Your task to perform on an android device: Search for the best books of all time on Goodreads Image 0: 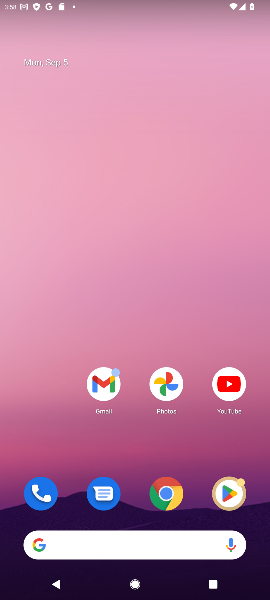
Step 0: drag from (136, 453) to (86, 38)
Your task to perform on an android device: Search for the best books of all time on Goodreads Image 1: 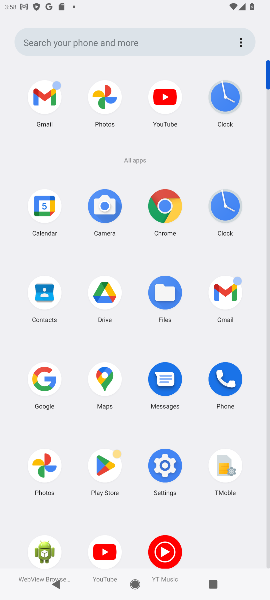
Step 1: click (164, 211)
Your task to perform on an android device: Search for the best books of all time on Goodreads Image 2: 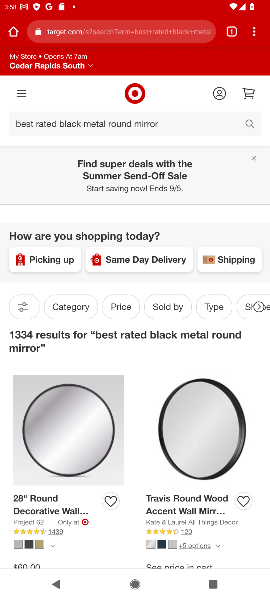
Step 2: click (70, 31)
Your task to perform on an android device: Search for the best books of all time on Goodreads Image 3: 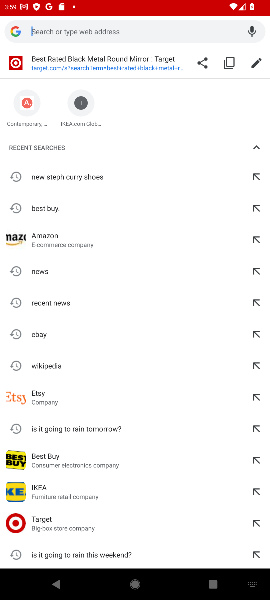
Step 3: type "Goodreads"
Your task to perform on an android device: Search for the best books of all time on Goodreads Image 4: 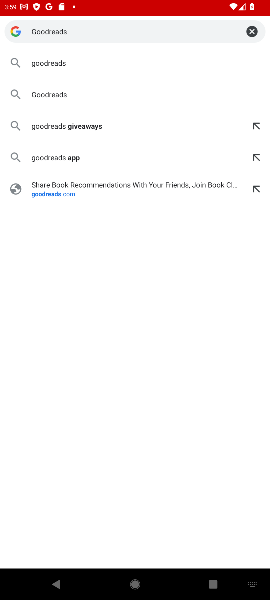
Step 4: click (26, 57)
Your task to perform on an android device: Search for the best books of all time on Goodreads Image 5: 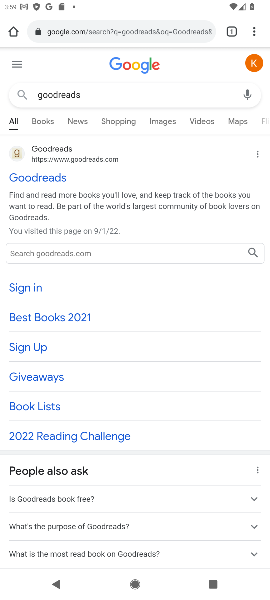
Step 5: click (43, 171)
Your task to perform on an android device: Search for the best books of all time on Goodreads Image 6: 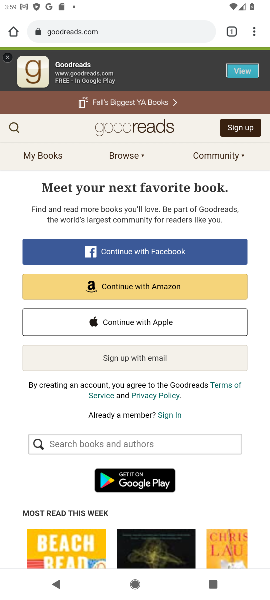
Step 6: click (11, 121)
Your task to perform on an android device: Search for the best books of all time on Goodreads Image 7: 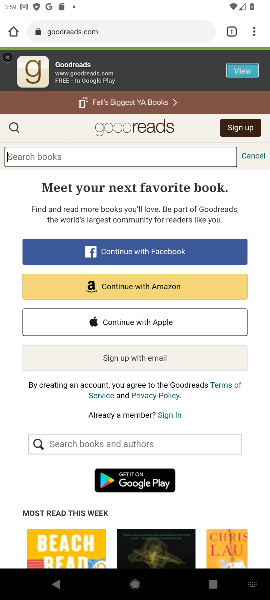
Step 7: type " best books of all time"
Your task to perform on an android device: Search for the best books of all time on Goodreads Image 8: 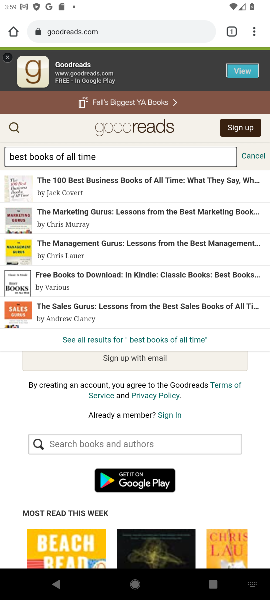
Step 8: click (88, 178)
Your task to perform on an android device: Search for the best books of all time on Goodreads Image 9: 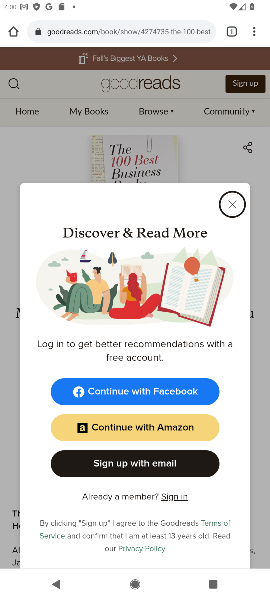
Step 9: click (243, 205)
Your task to perform on an android device: Search for the best books of all time on Goodreads Image 10: 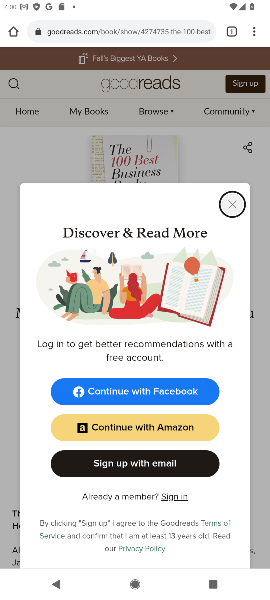
Step 10: task complete